Your task to perform on an android device: Clear the shopping cart on walmart.com. Add logitech g903 to the cart on walmart.com Image 0: 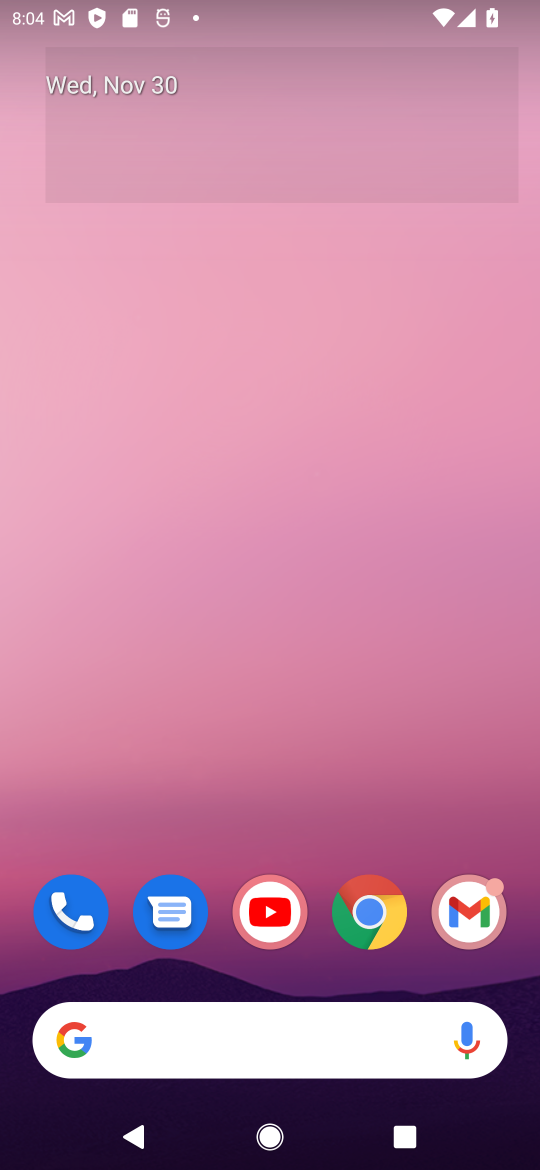
Step 0: click (287, 1047)
Your task to perform on an android device: Clear the shopping cart on walmart.com. Add logitech g903 to the cart on walmart.com Image 1: 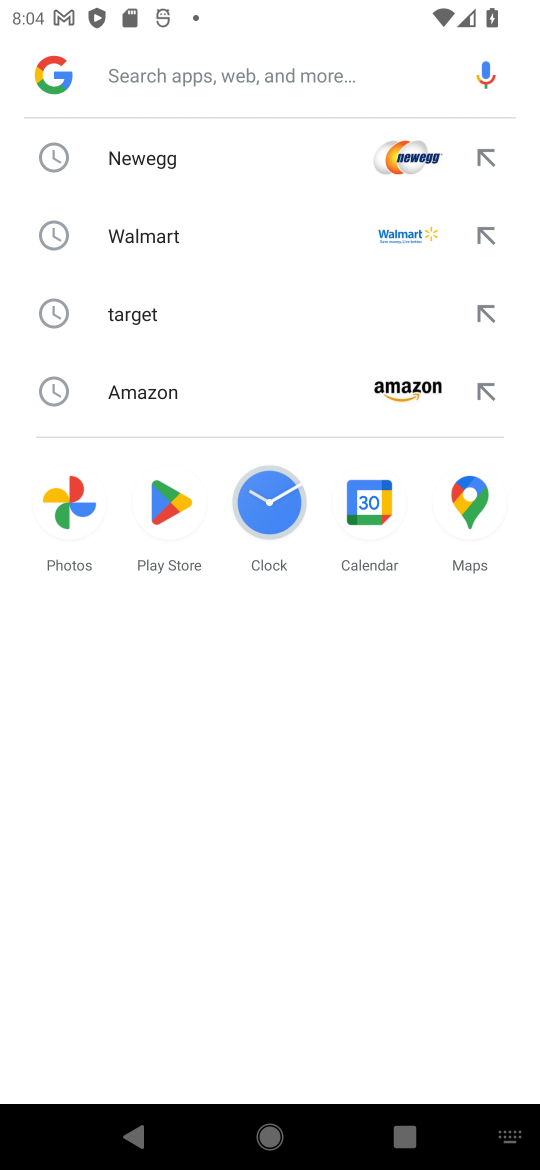
Step 1: click (243, 233)
Your task to perform on an android device: Clear the shopping cart on walmart.com. Add logitech g903 to the cart on walmart.com Image 2: 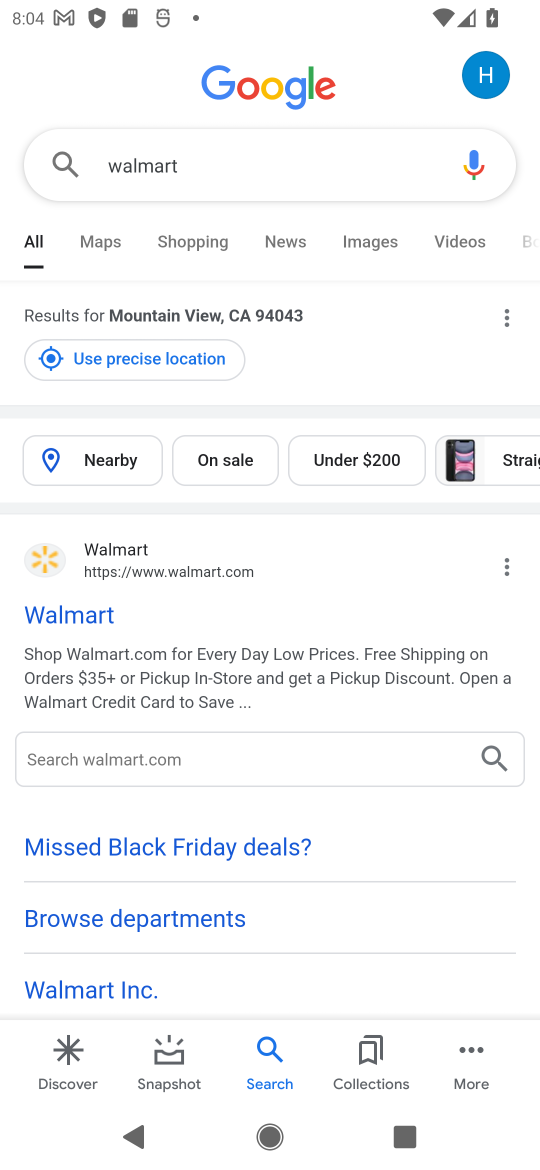
Step 2: click (94, 559)
Your task to perform on an android device: Clear the shopping cart on walmart.com. Add logitech g903 to the cart on walmart.com Image 3: 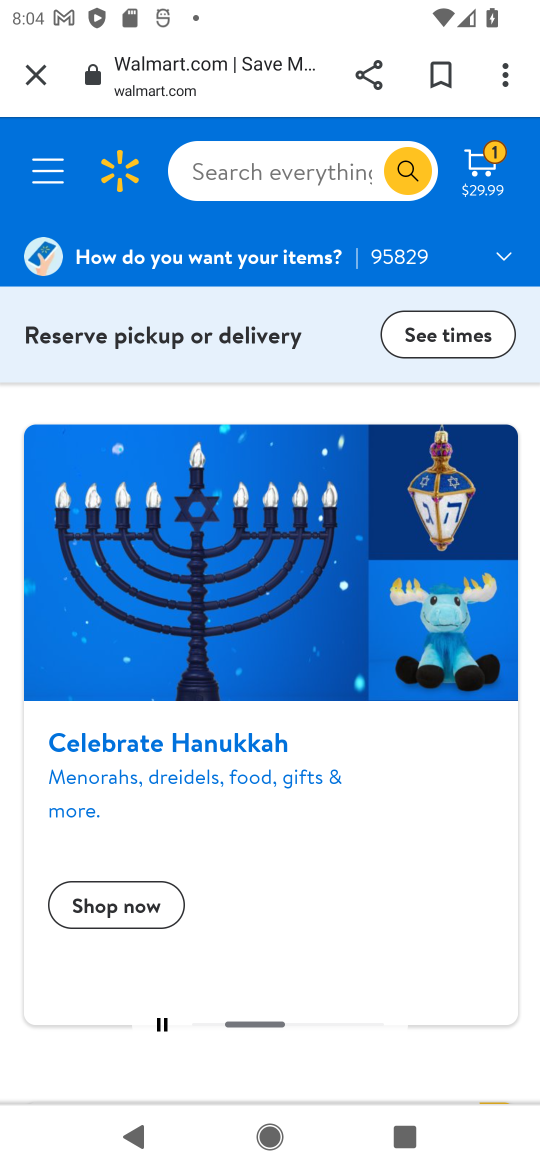
Step 3: click (485, 168)
Your task to perform on an android device: Clear the shopping cart on walmart.com. Add logitech g903 to the cart on walmart.com Image 4: 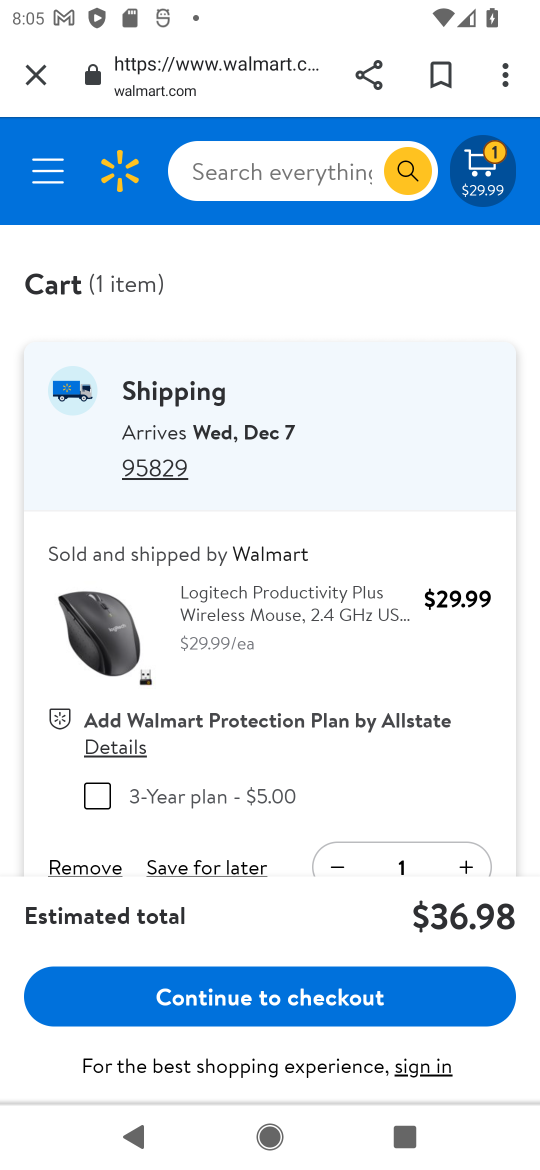
Step 4: click (97, 868)
Your task to perform on an android device: Clear the shopping cart on walmart.com. Add logitech g903 to the cart on walmart.com Image 5: 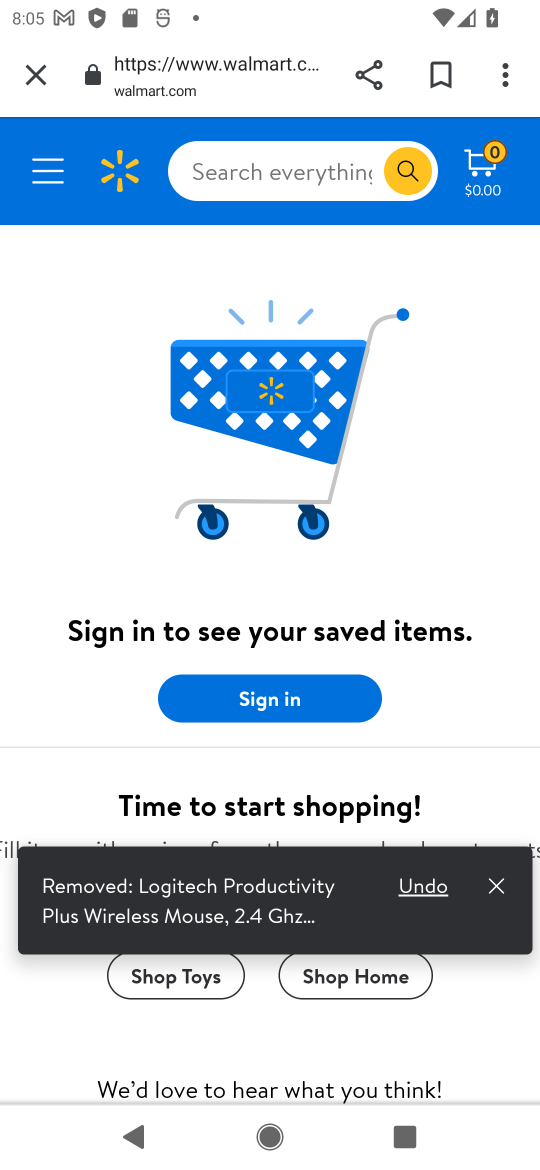
Step 5: task complete